Your task to perform on an android device: set an alarm Image 0: 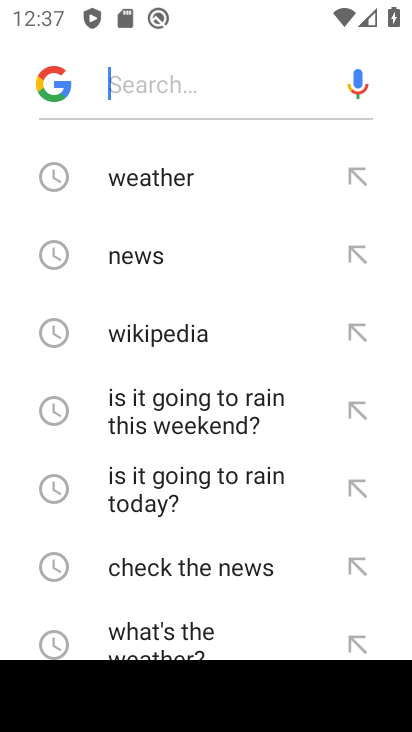
Step 0: press home button
Your task to perform on an android device: set an alarm Image 1: 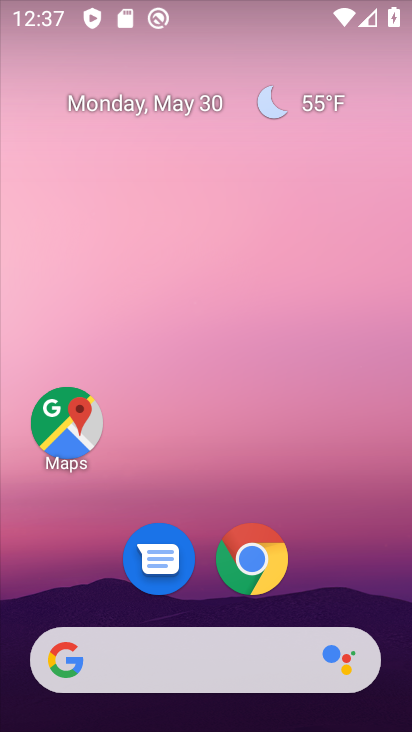
Step 1: drag from (163, 486) to (228, 60)
Your task to perform on an android device: set an alarm Image 2: 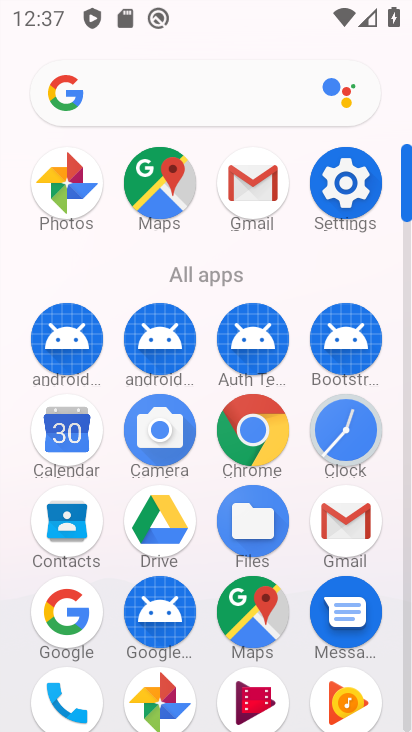
Step 2: click (353, 436)
Your task to perform on an android device: set an alarm Image 3: 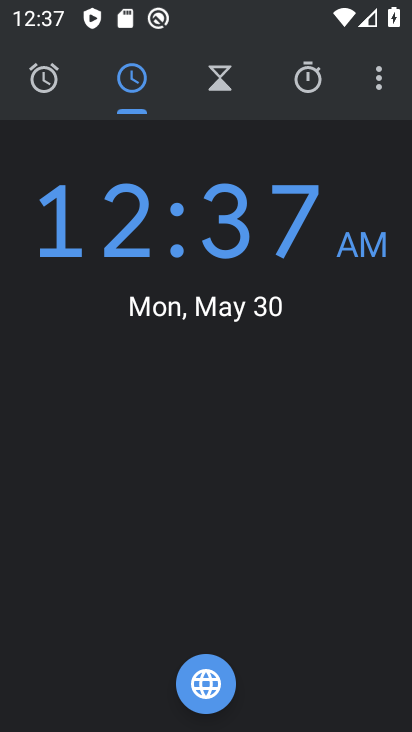
Step 3: click (39, 70)
Your task to perform on an android device: set an alarm Image 4: 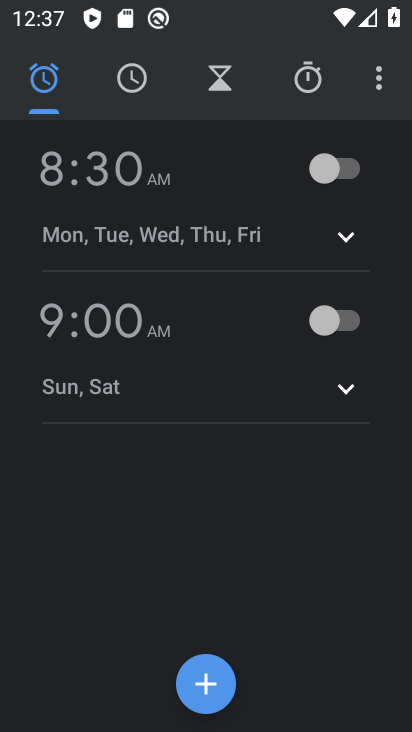
Step 4: click (326, 169)
Your task to perform on an android device: set an alarm Image 5: 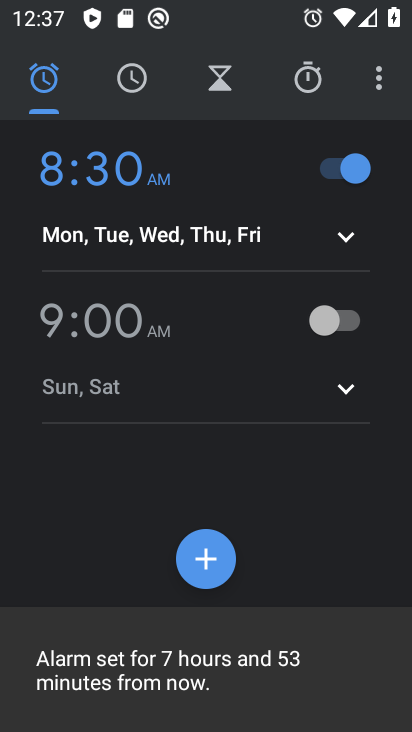
Step 5: task complete